Your task to perform on an android device: Open Android settings Image 0: 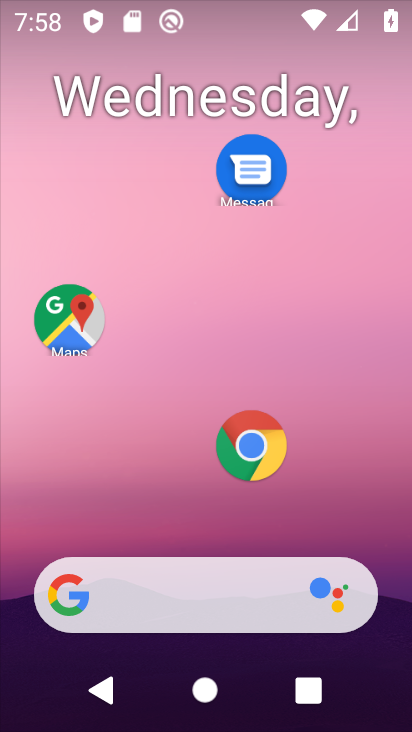
Step 0: drag from (251, 12) to (311, 46)
Your task to perform on an android device: Open Android settings Image 1: 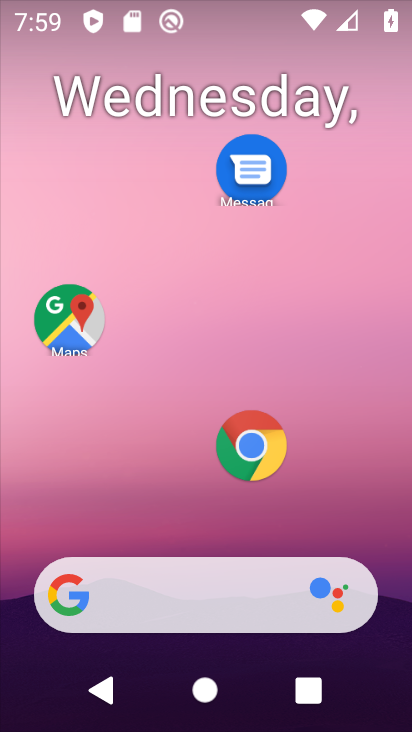
Step 1: drag from (293, 684) to (187, 26)
Your task to perform on an android device: Open Android settings Image 2: 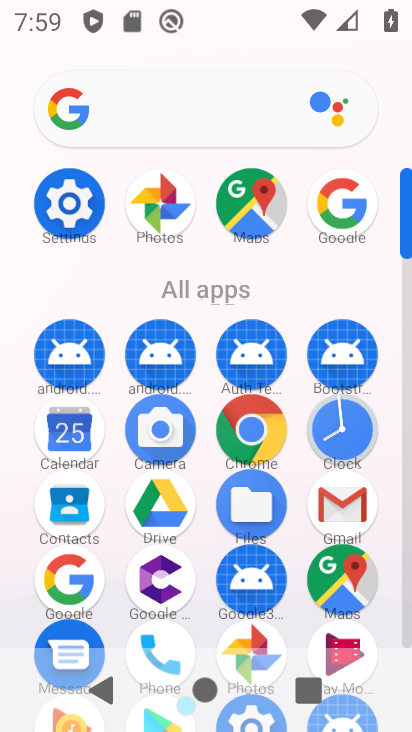
Step 2: click (79, 199)
Your task to perform on an android device: Open Android settings Image 3: 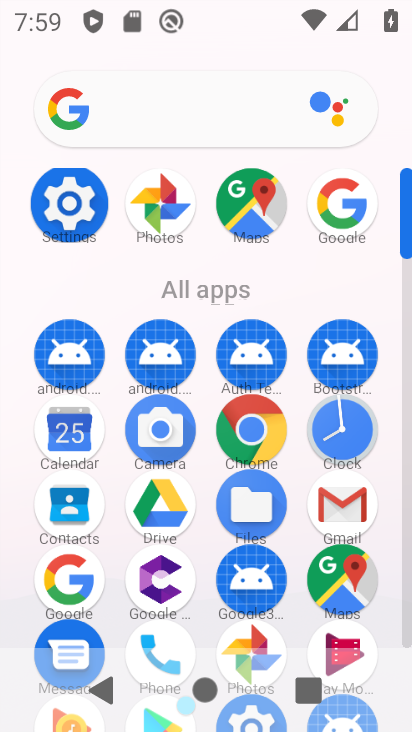
Step 3: click (83, 205)
Your task to perform on an android device: Open Android settings Image 4: 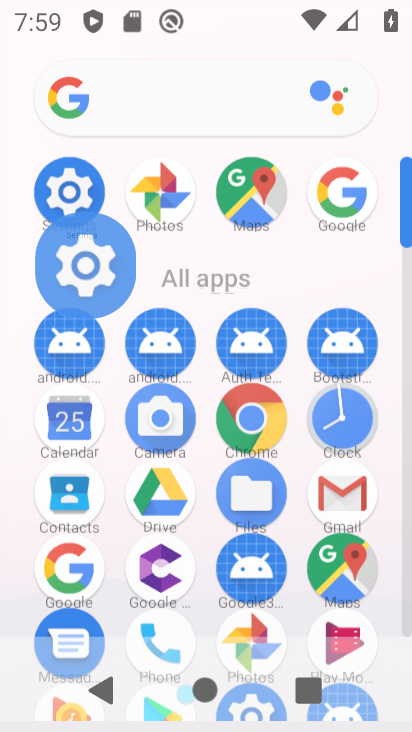
Step 4: click (83, 205)
Your task to perform on an android device: Open Android settings Image 5: 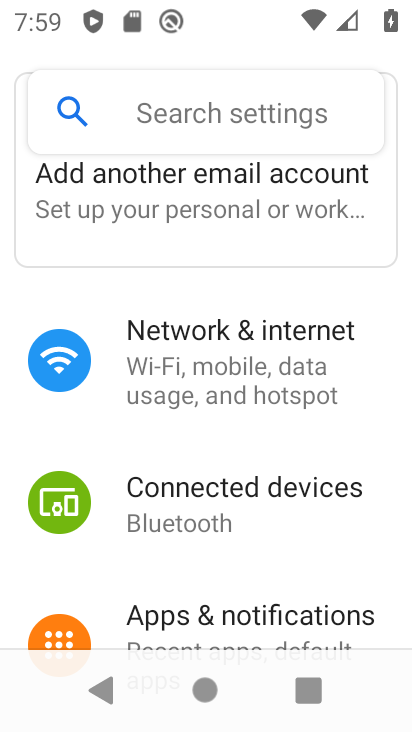
Step 5: drag from (262, 569) to (245, 380)
Your task to perform on an android device: Open Android settings Image 6: 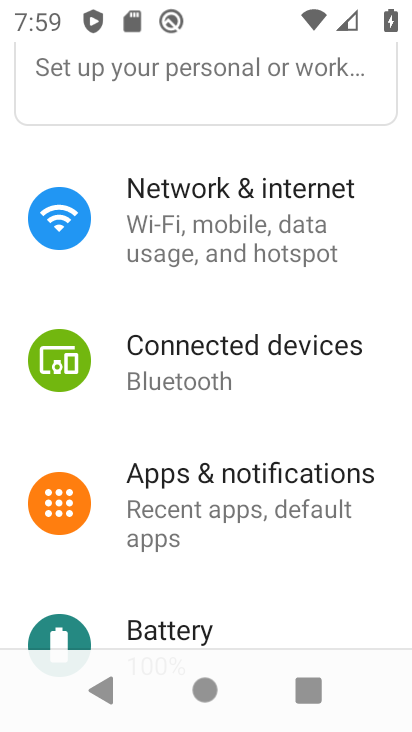
Step 6: drag from (248, 347) to (217, 131)
Your task to perform on an android device: Open Android settings Image 7: 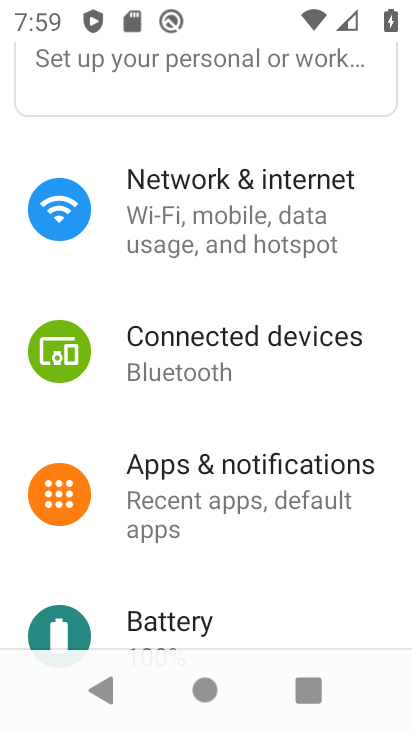
Step 7: drag from (196, 423) to (210, 168)
Your task to perform on an android device: Open Android settings Image 8: 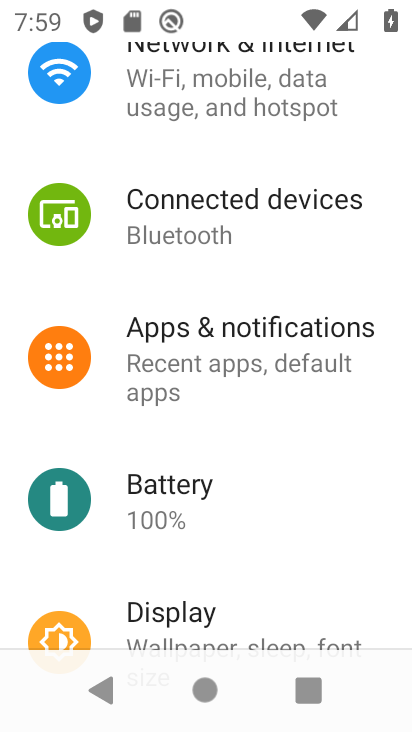
Step 8: drag from (221, 418) to (259, 119)
Your task to perform on an android device: Open Android settings Image 9: 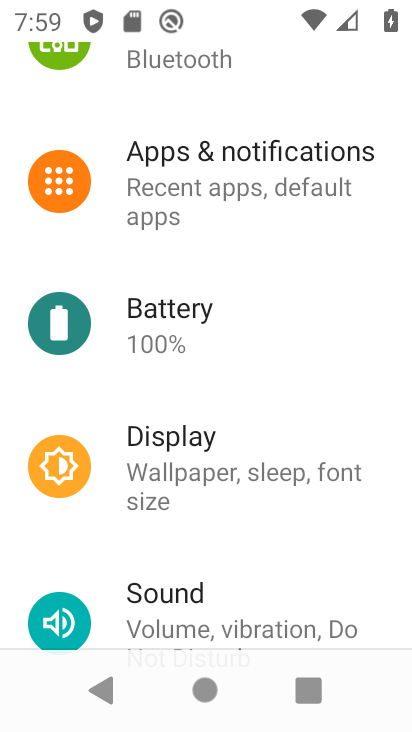
Step 9: drag from (252, 444) to (251, 81)
Your task to perform on an android device: Open Android settings Image 10: 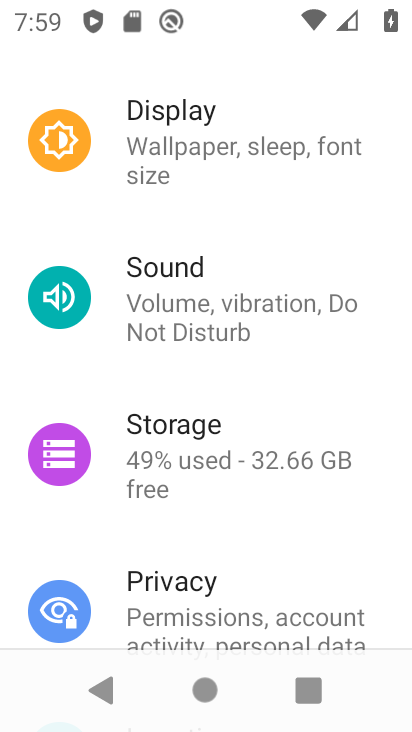
Step 10: drag from (213, 453) to (190, 97)
Your task to perform on an android device: Open Android settings Image 11: 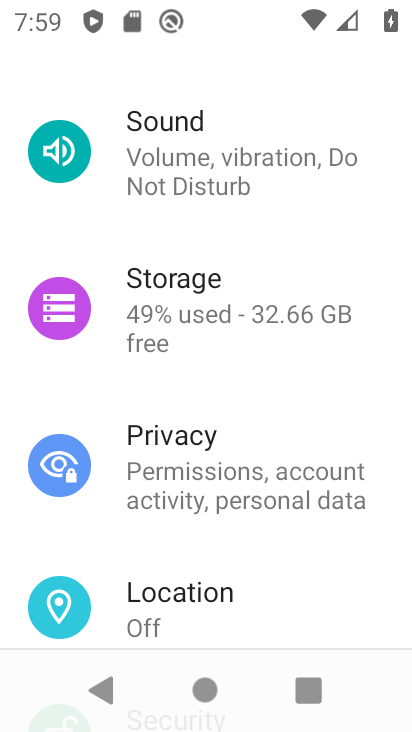
Step 11: drag from (225, 408) to (229, 79)
Your task to perform on an android device: Open Android settings Image 12: 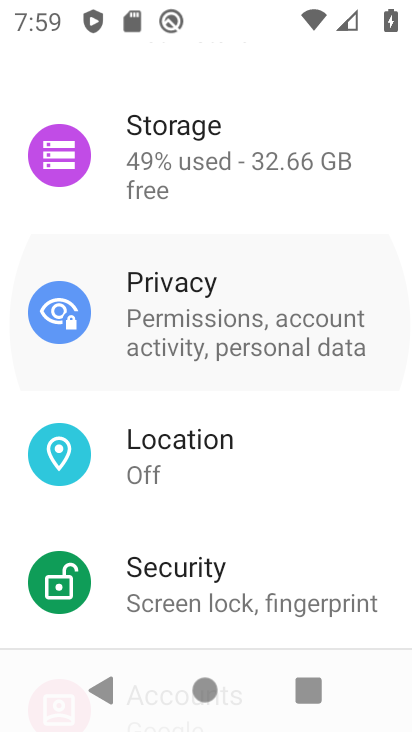
Step 12: drag from (203, 449) to (203, 187)
Your task to perform on an android device: Open Android settings Image 13: 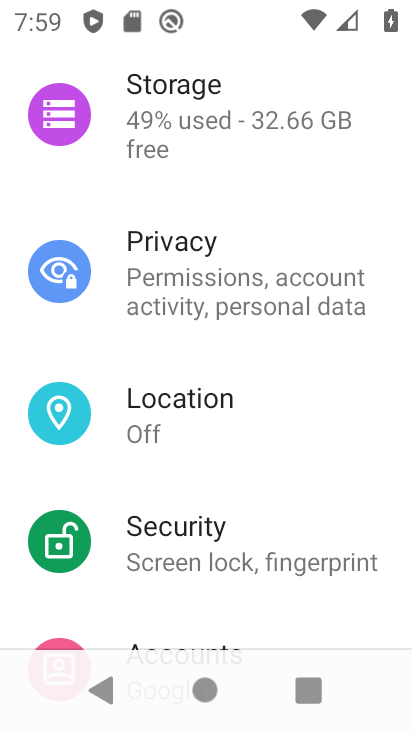
Step 13: drag from (203, 357) to (208, 145)
Your task to perform on an android device: Open Android settings Image 14: 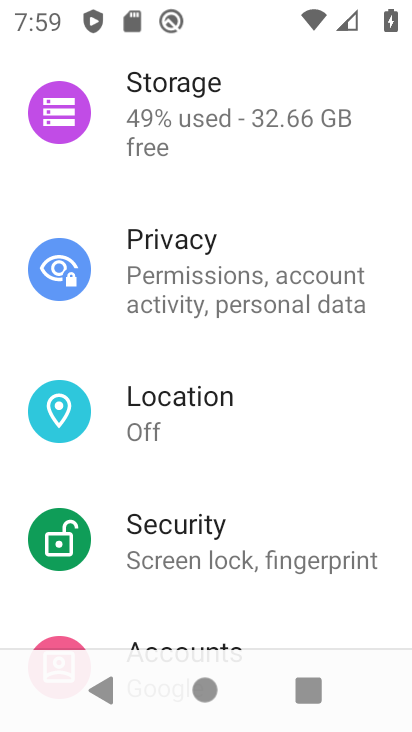
Step 14: drag from (227, 268) to (230, 182)
Your task to perform on an android device: Open Android settings Image 15: 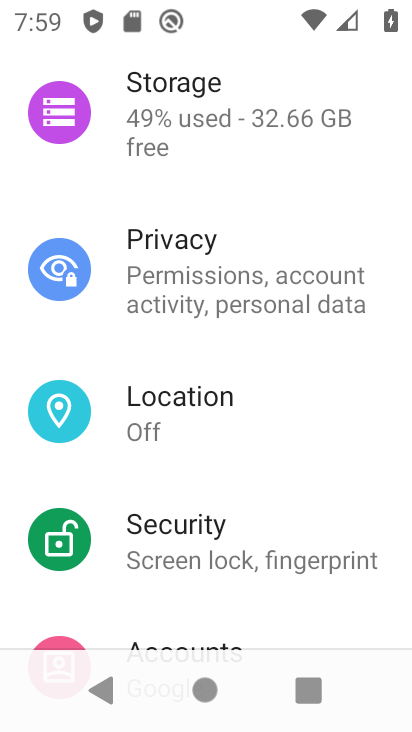
Step 15: drag from (233, 598) to (252, 207)
Your task to perform on an android device: Open Android settings Image 16: 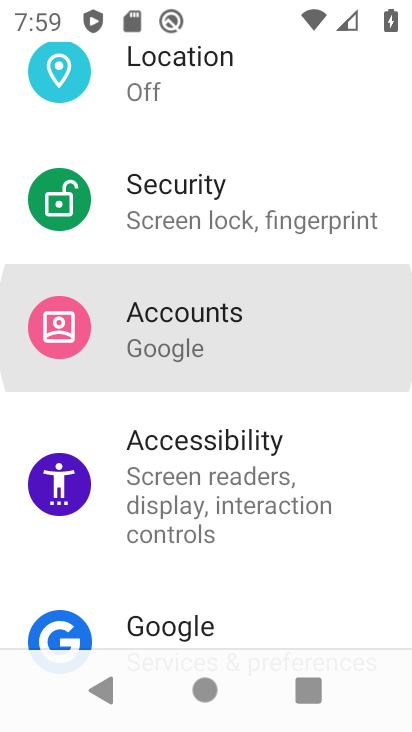
Step 16: drag from (190, 422) to (209, 221)
Your task to perform on an android device: Open Android settings Image 17: 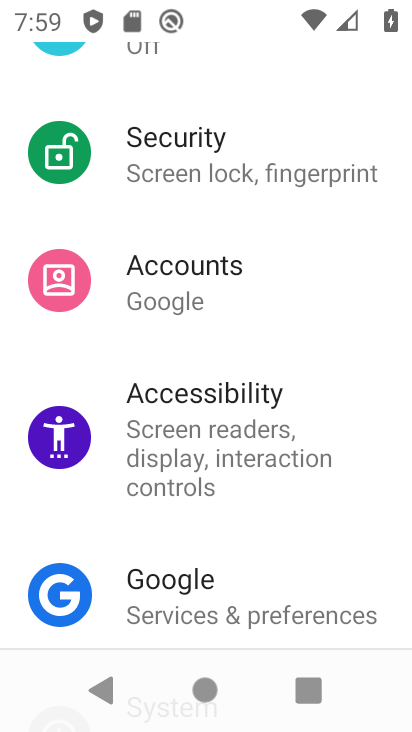
Step 17: drag from (209, 525) to (227, 213)
Your task to perform on an android device: Open Android settings Image 18: 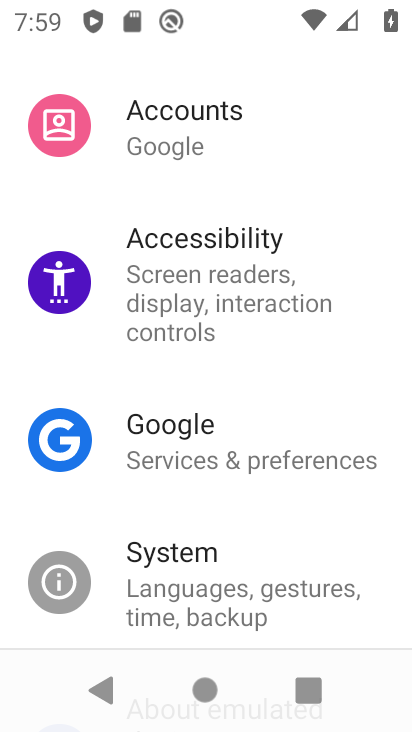
Step 18: drag from (294, 389) to (294, 212)
Your task to perform on an android device: Open Android settings Image 19: 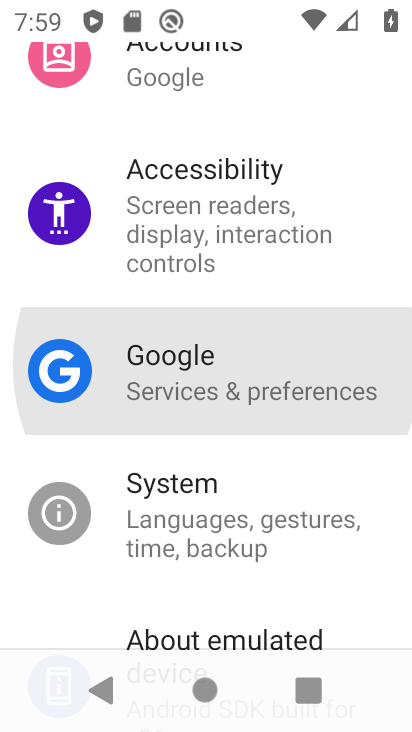
Step 19: drag from (169, 595) to (191, 261)
Your task to perform on an android device: Open Android settings Image 20: 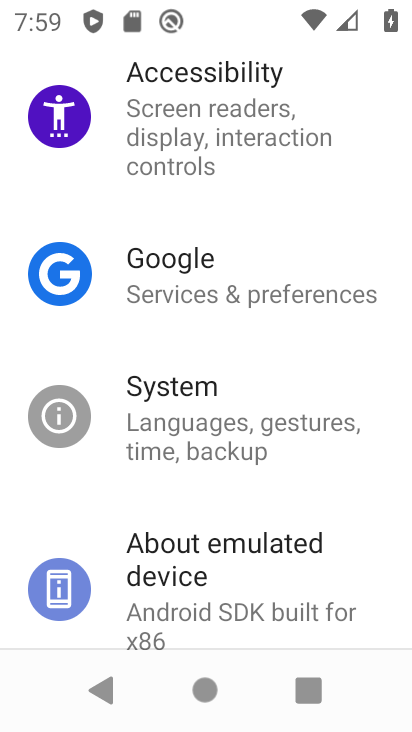
Step 20: drag from (193, 550) to (201, 253)
Your task to perform on an android device: Open Android settings Image 21: 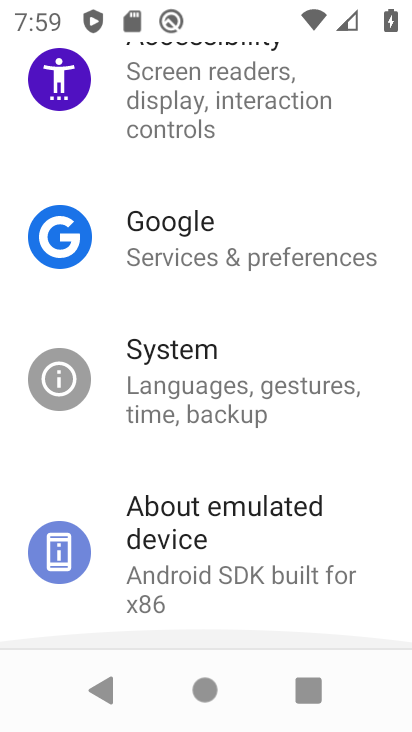
Step 21: drag from (273, 531) to (268, 306)
Your task to perform on an android device: Open Android settings Image 22: 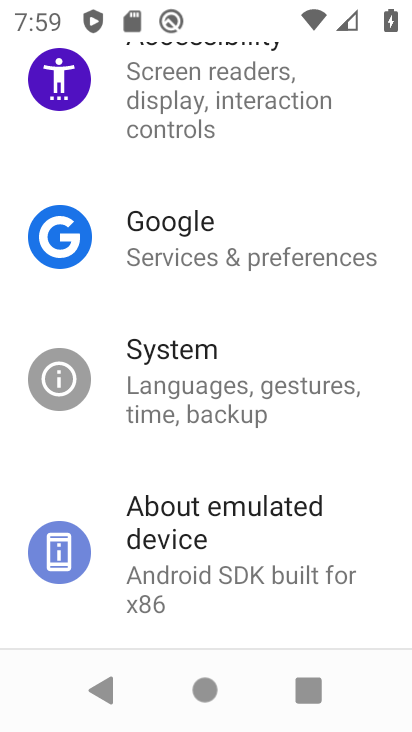
Step 22: drag from (295, 536) to (270, 126)
Your task to perform on an android device: Open Android settings Image 23: 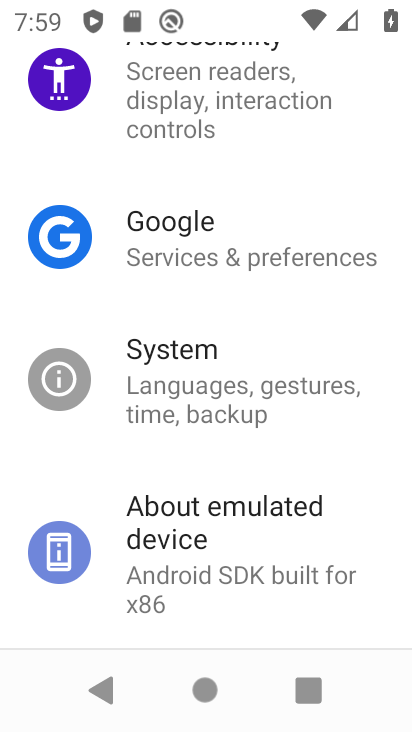
Step 23: click (166, 551)
Your task to perform on an android device: Open Android settings Image 24: 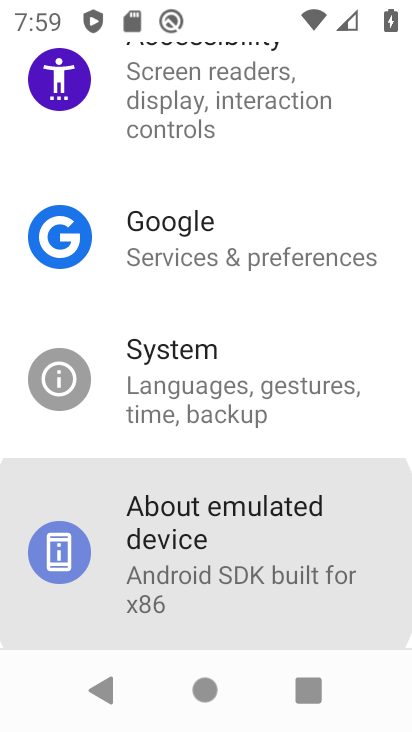
Step 24: click (166, 551)
Your task to perform on an android device: Open Android settings Image 25: 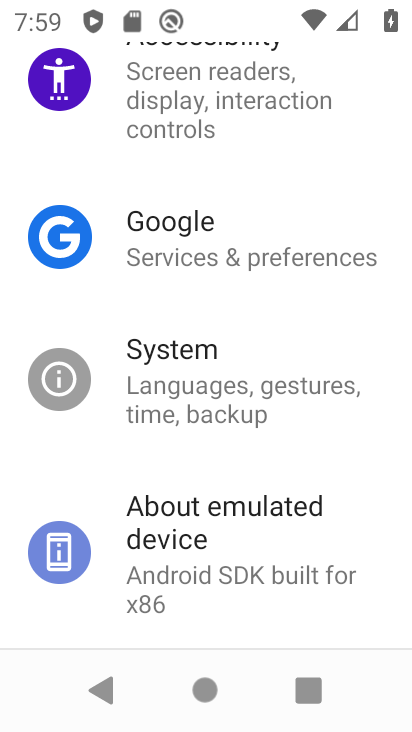
Step 25: click (166, 551)
Your task to perform on an android device: Open Android settings Image 26: 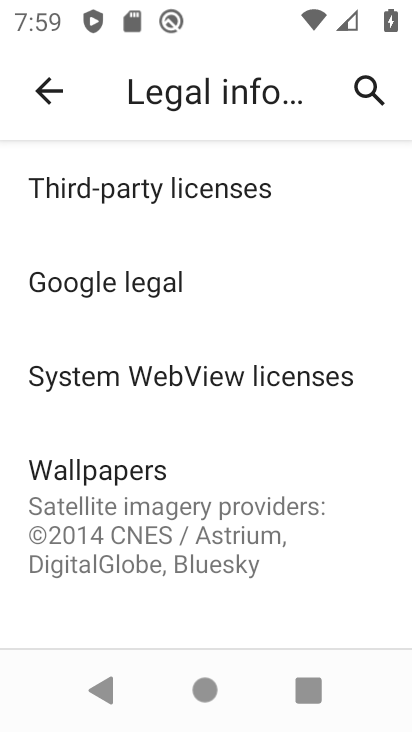
Step 26: click (43, 89)
Your task to perform on an android device: Open Android settings Image 27: 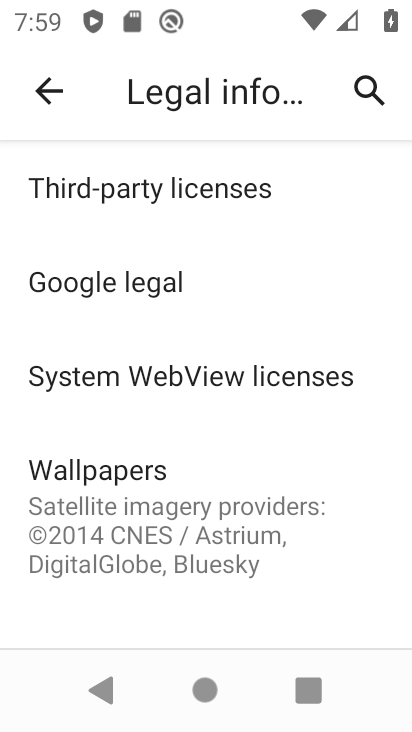
Step 27: task complete